Your task to perform on an android device: Is it going to rain tomorrow? Image 0: 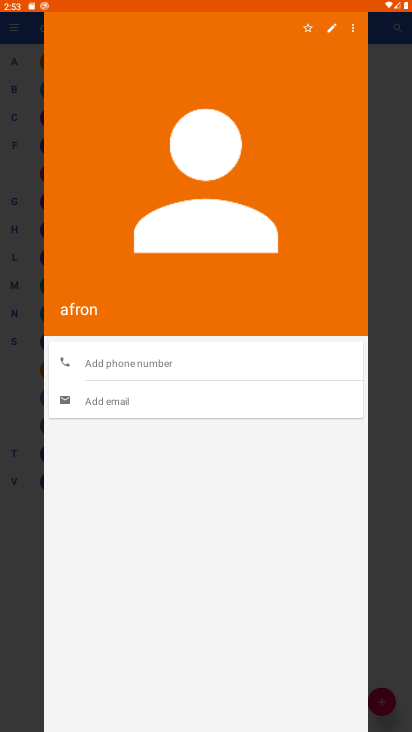
Step 0: press home button
Your task to perform on an android device: Is it going to rain tomorrow? Image 1: 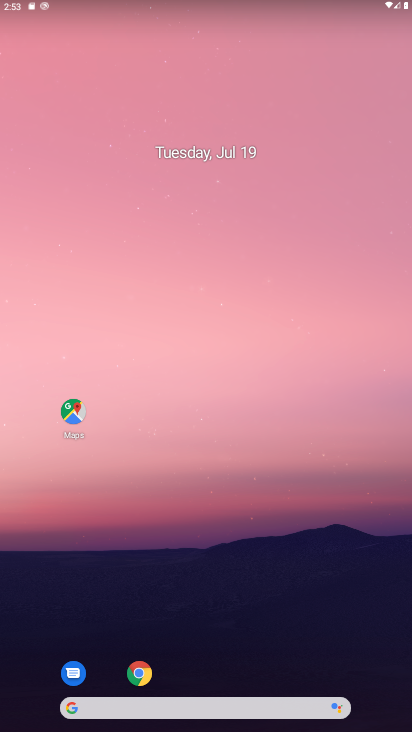
Step 1: click (159, 705)
Your task to perform on an android device: Is it going to rain tomorrow? Image 2: 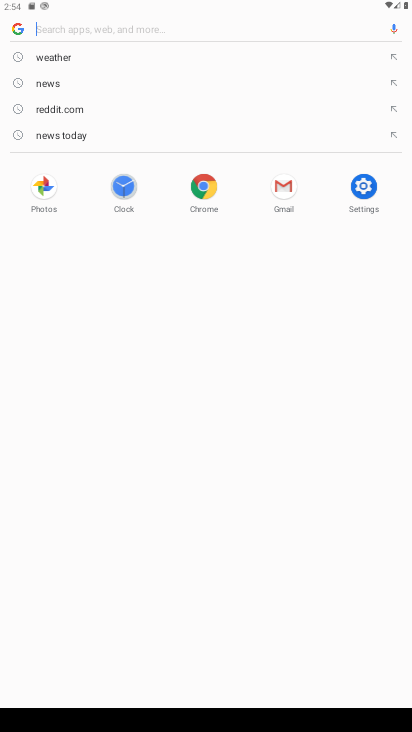
Step 2: click (66, 59)
Your task to perform on an android device: Is it going to rain tomorrow? Image 3: 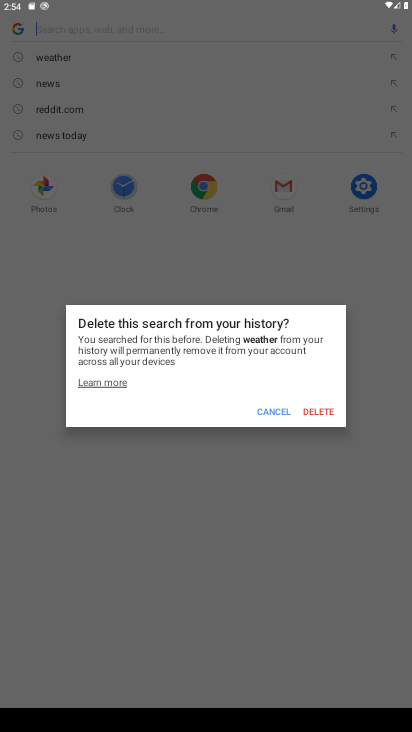
Step 3: click (272, 402)
Your task to perform on an android device: Is it going to rain tomorrow? Image 4: 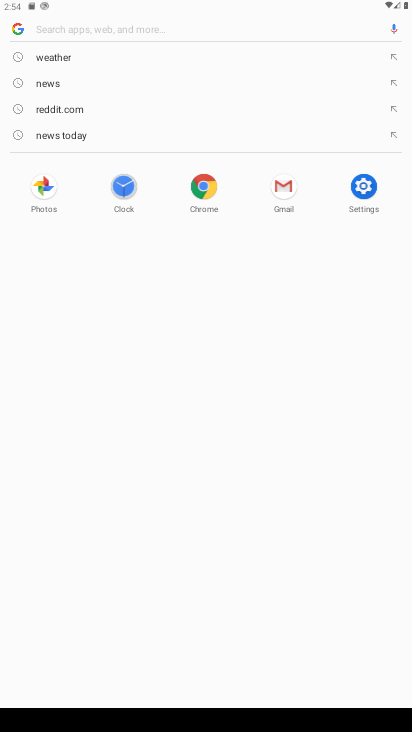
Step 4: click (74, 64)
Your task to perform on an android device: Is it going to rain tomorrow? Image 5: 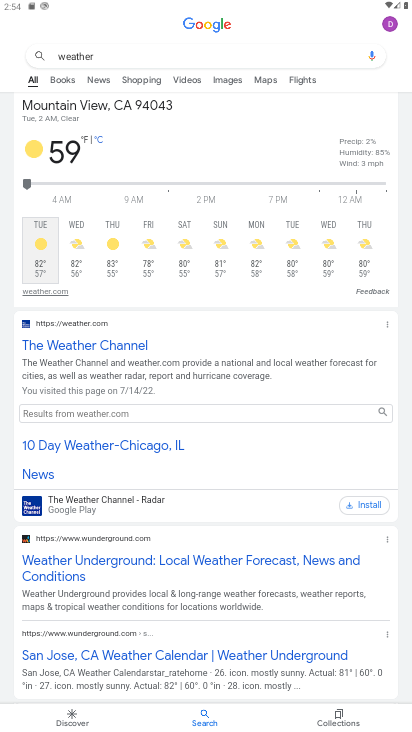
Step 5: task complete